Your task to perform on an android device: open app "Nova Launcher" Image 0: 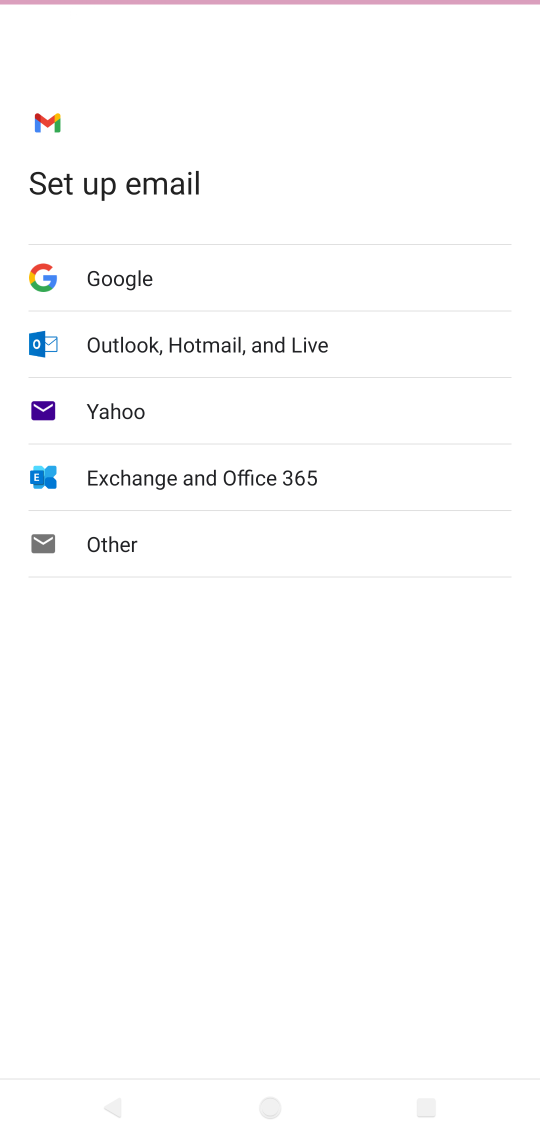
Step 0: press home button
Your task to perform on an android device: open app "Nova Launcher" Image 1: 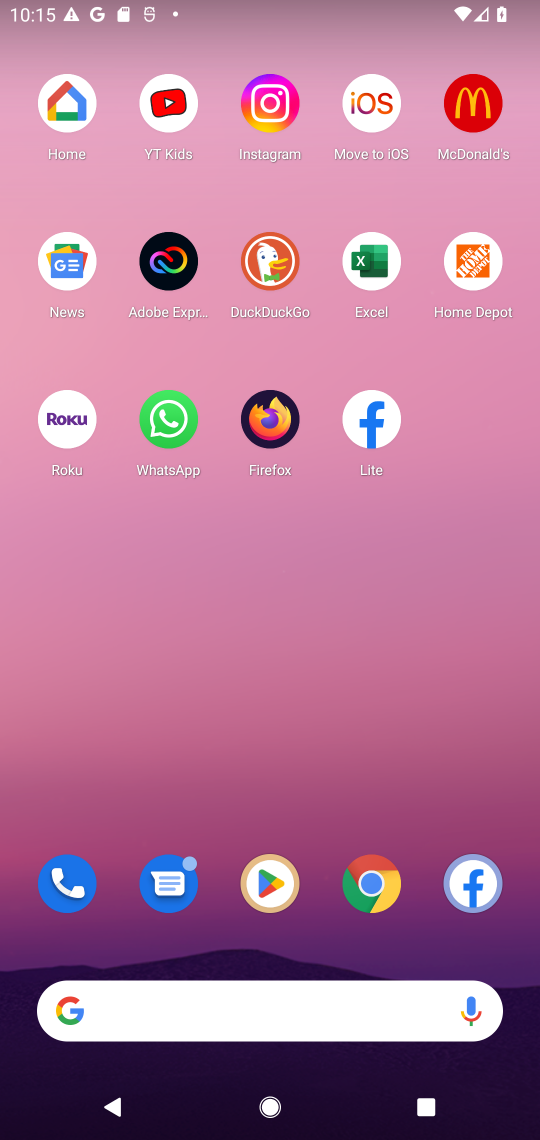
Step 1: drag from (426, 759) to (438, 47)
Your task to perform on an android device: open app "Nova Launcher" Image 2: 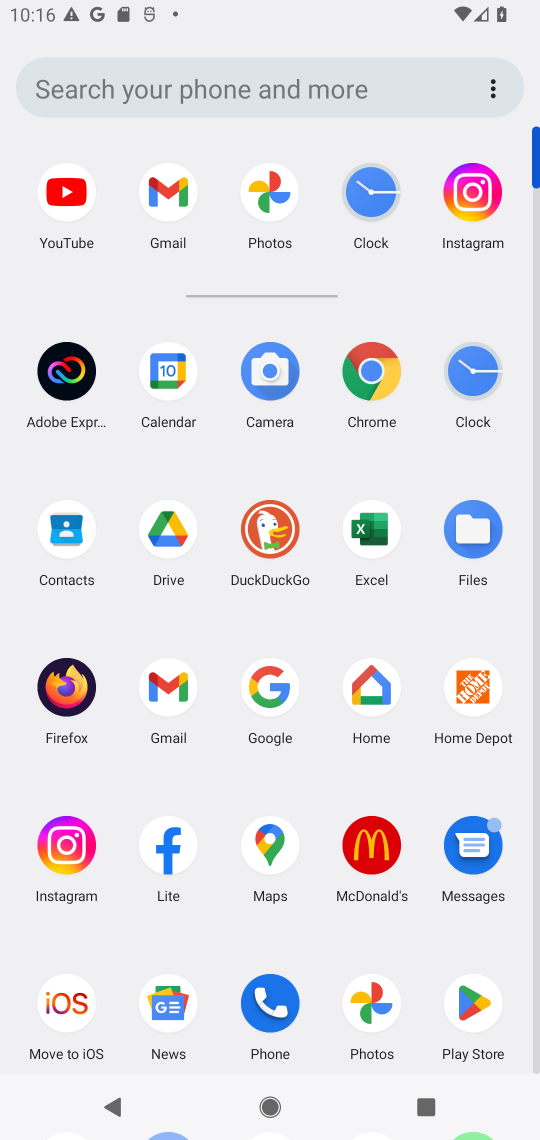
Step 2: click (469, 1004)
Your task to perform on an android device: open app "Nova Launcher" Image 3: 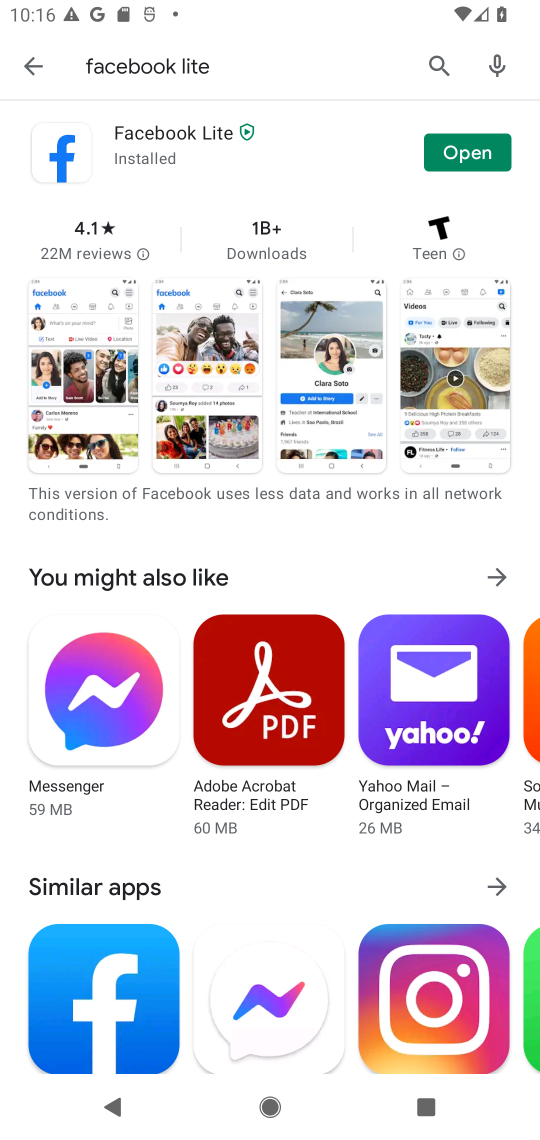
Step 3: click (477, 1005)
Your task to perform on an android device: open app "Nova Launcher" Image 4: 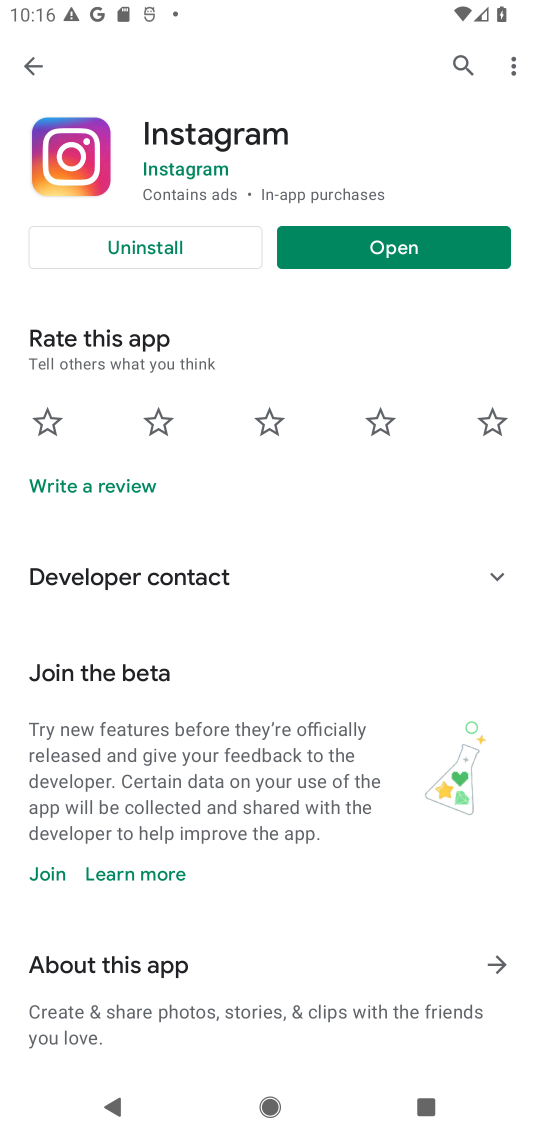
Step 4: click (441, 54)
Your task to perform on an android device: open app "Nova Launcher" Image 5: 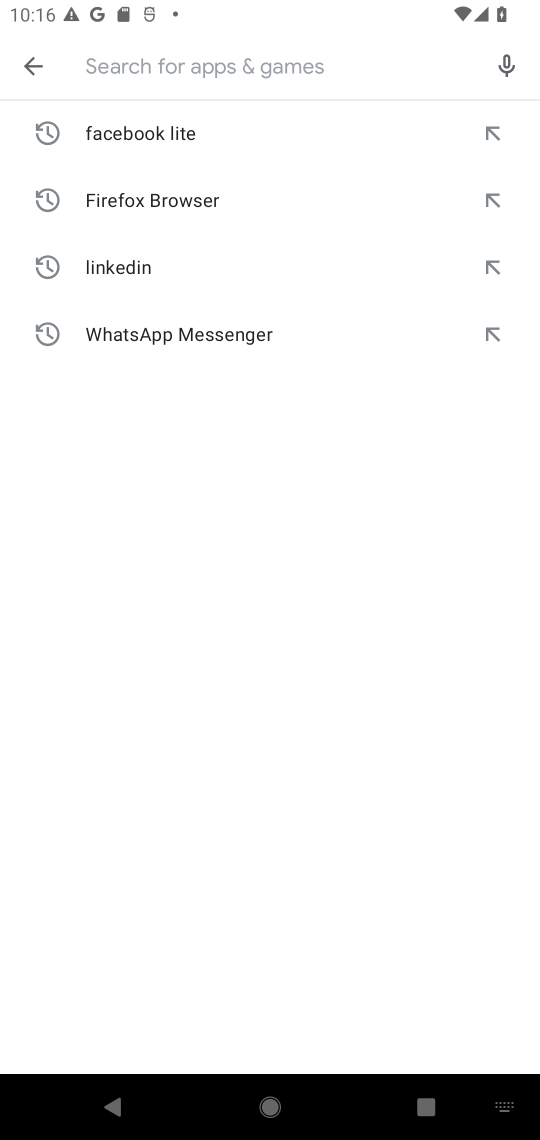
Step 5: press enter
Your task to perform on an android device: open app "Nova Launcher" Image 6: 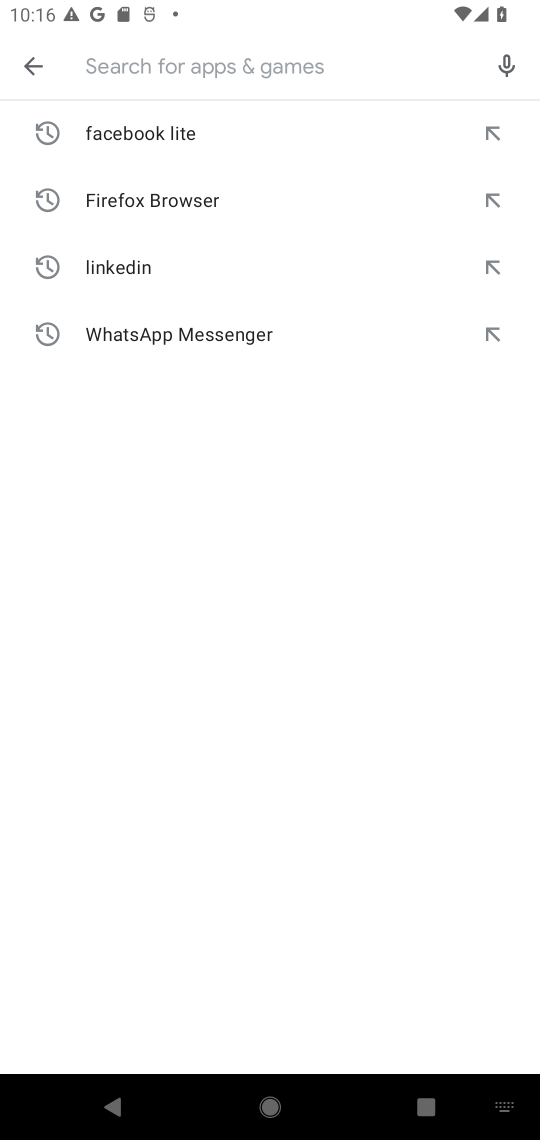
Step 6: type "nova launcher"
Your task to perform on an android device: open app "Nova Launcher" Image 7: 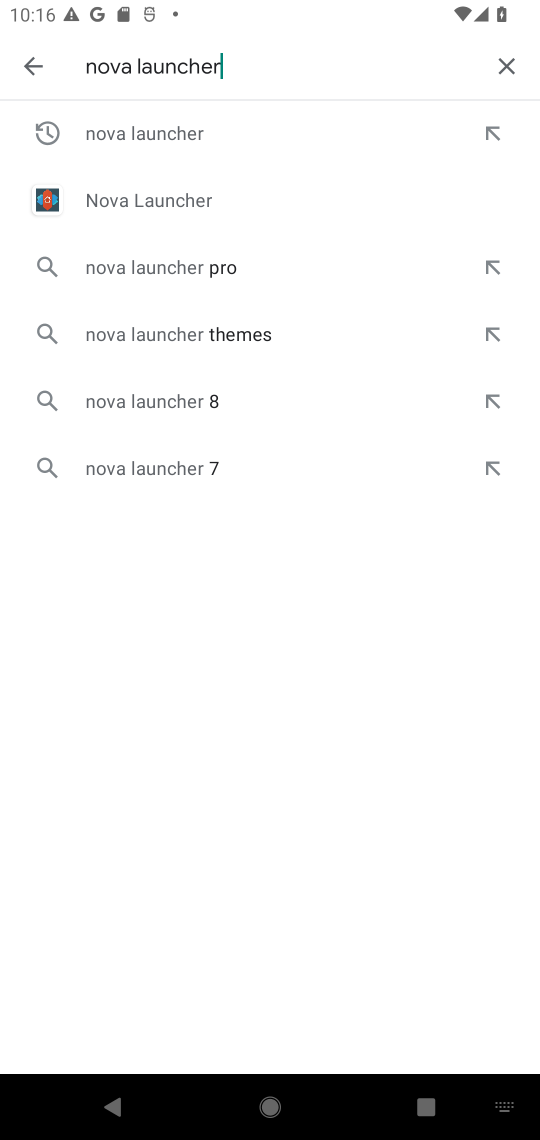
Step 7: click (170, 196)
Your task to perform on an android device: open app "Nova Launcher" Image 8: 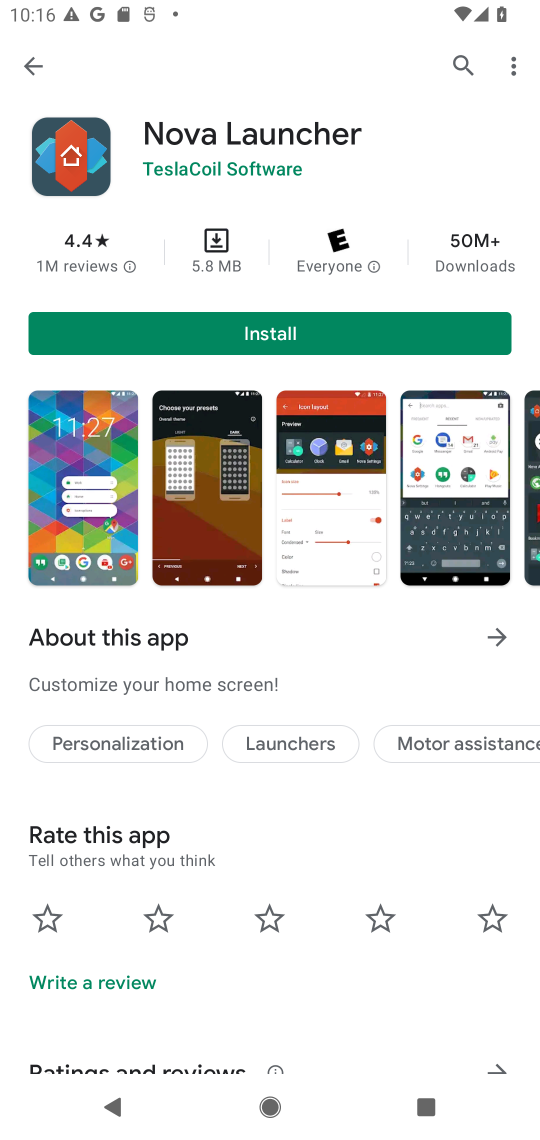
Step 8: task complete